Your task to perform on an android device: see creations saved in the google photos Image 0: 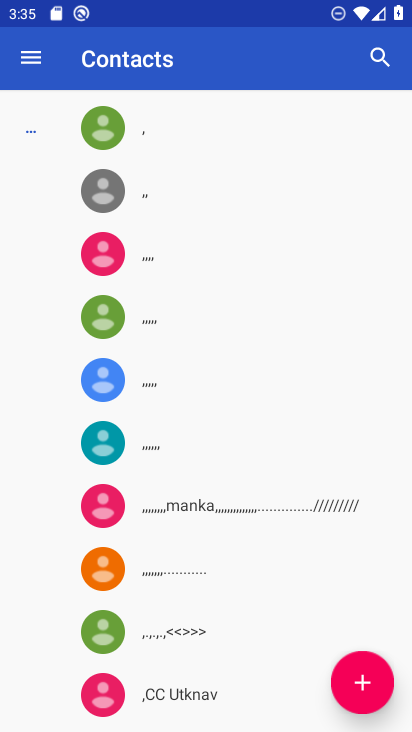
Step 0: press home button
Your task to perform on an android device: see creations saved in the google photos Image 1: 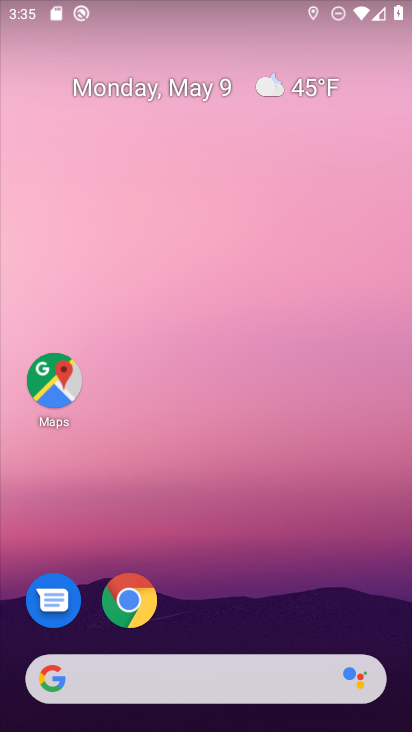
Step 1: drag from (210, 609) to (287, 165)
Your task to perform on an android device: see creations saved in the google photos Image 2: 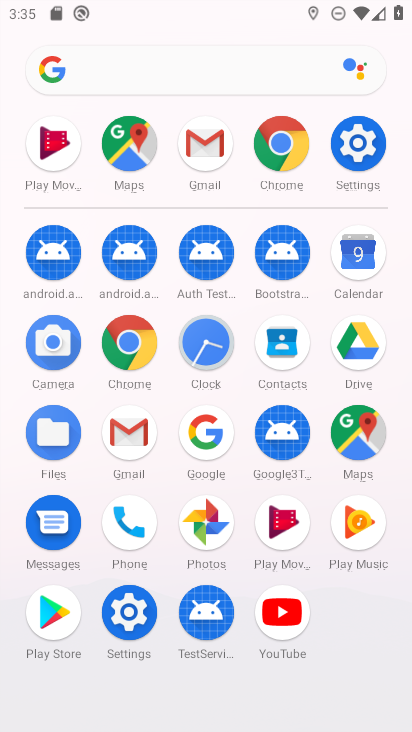
Step 2: click (217, 539)
Your task to perform on an android device: see creations saved in the google photos Image 3: 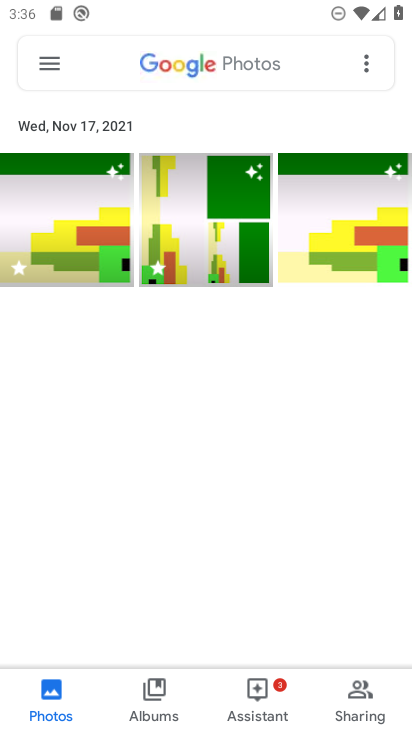
Step 3: click (216, 56)
Your task to perform on an android device: see creations saved in the google photos Image 4: 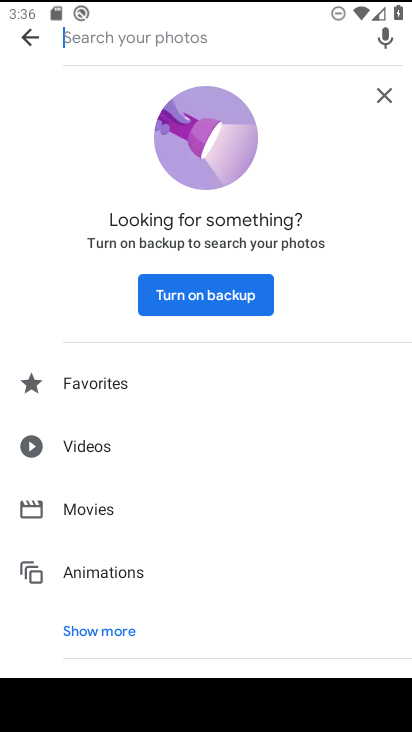
Step 4: type "creations"
Your task to perform on an android device: see creations saved in the google photos Image 5: 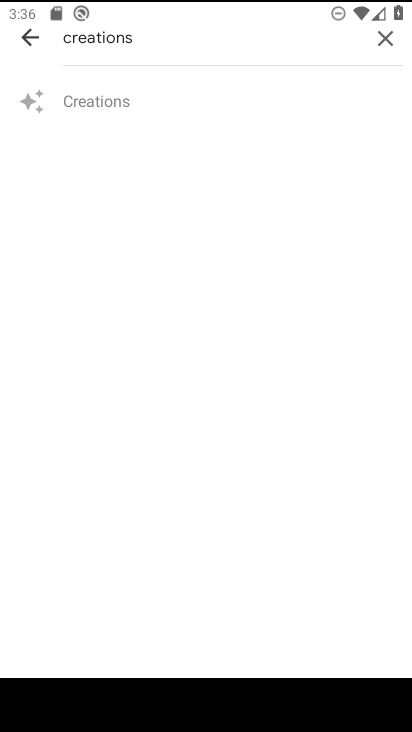
Step 5: click (129, 108)
Your task to perform on an android device: see creations saved in the google photos Image 6: 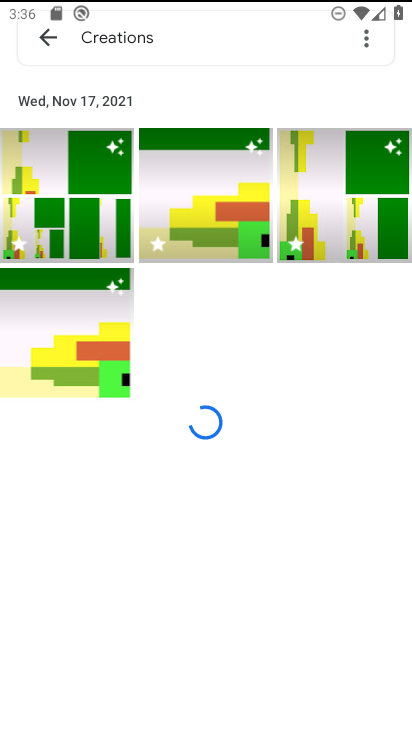
Step 6: task complete